Your task to perform on an android device: turn off airplane mode Image 0: 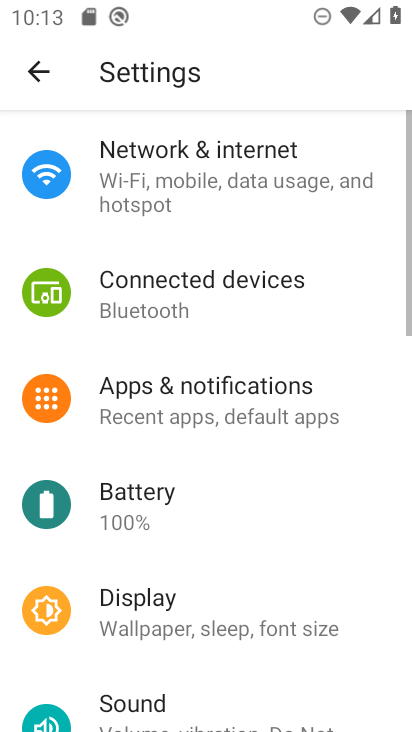
Step 0: click (222, 199)
Your task to perform on an android device: turn off airplane mode Image 1: 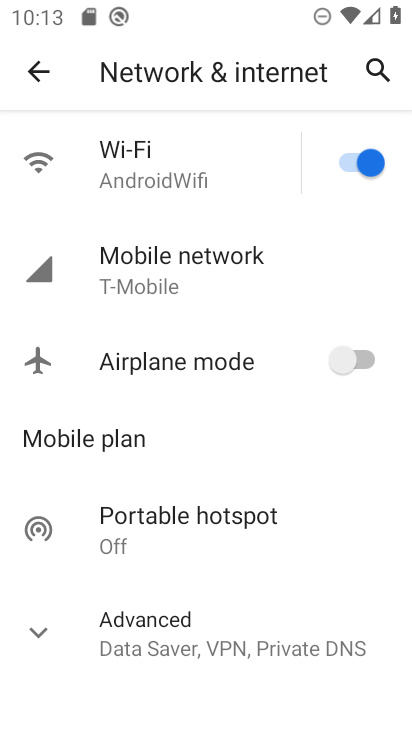
Step 1: task complete